Your task to perform on an android device: open app "Pluto TV - Live TV and Movies" (install if not already installed) Image 0: 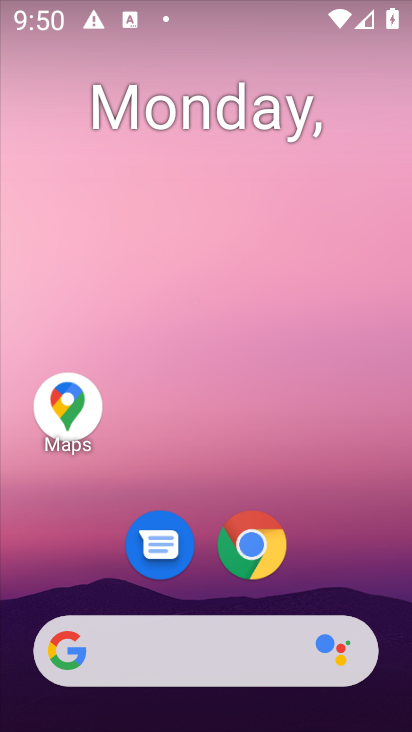
Step 0: drag from (373, 565) to (354, 102)
Your task to perform on an android device: open app "Pluto TV - Live TV and Movies" (install if not already installed) Image 1: 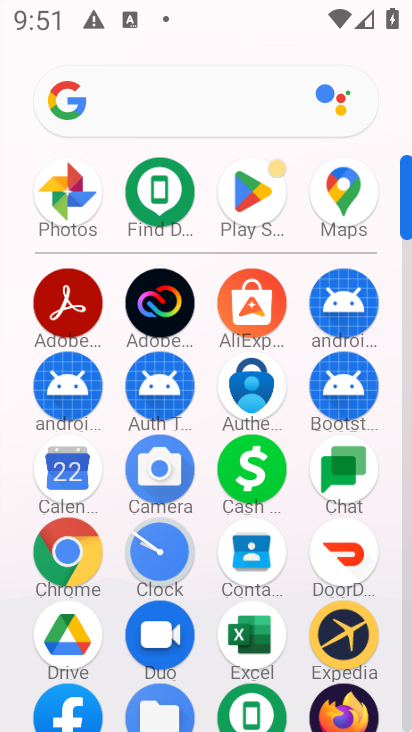
Step 1: click (258, 192)
Your task to perform on an android device: open app "Pluto TV - Live TV and Movies" (install if not already installed) Image 2: 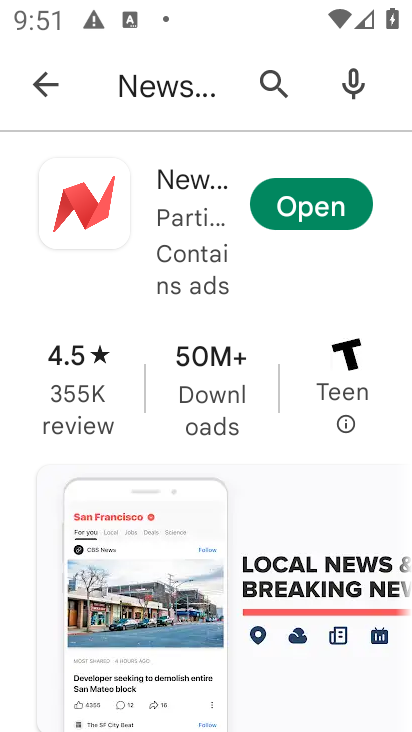
Step 2: press back button
Your task to perform on an android device: open app "Pluto TV - Live TV and Movies" (install if not already installed) Image 3: 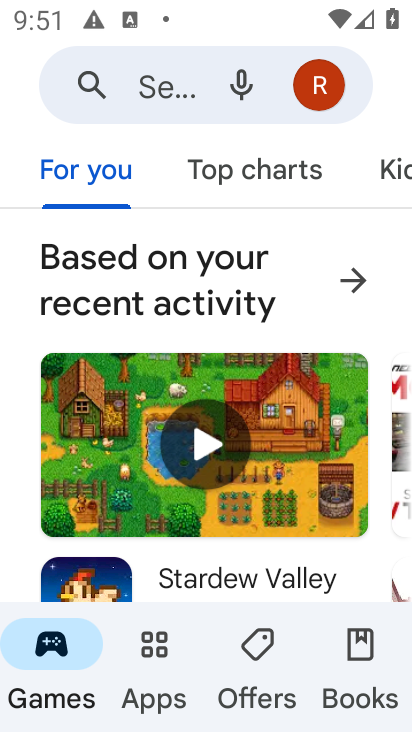
Step 3: click (169, 74)
Your task to perform on an android device: open app "Pluto TV - Live TV and Movies" (install if not already installed) Image 4: 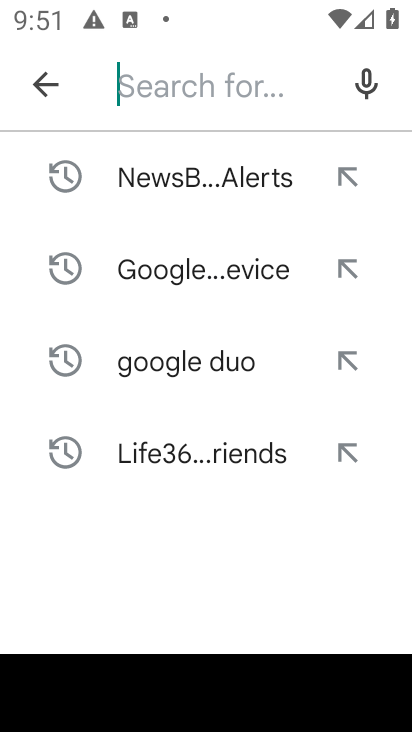
Step 4: type "Pluto TV - Live TV and Movies"
Your task to perform on an android device: open app "Pluto TV - Live TV and Movies" (install if not already installed) Image 5: 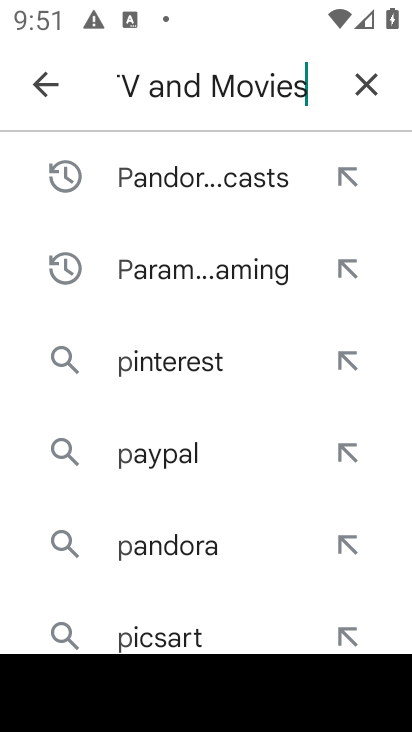
Step 5: press enter
Your task to perform on an android device: open app "Pluto TV - Live TV and Movies" (install if not already installed) Image 6: 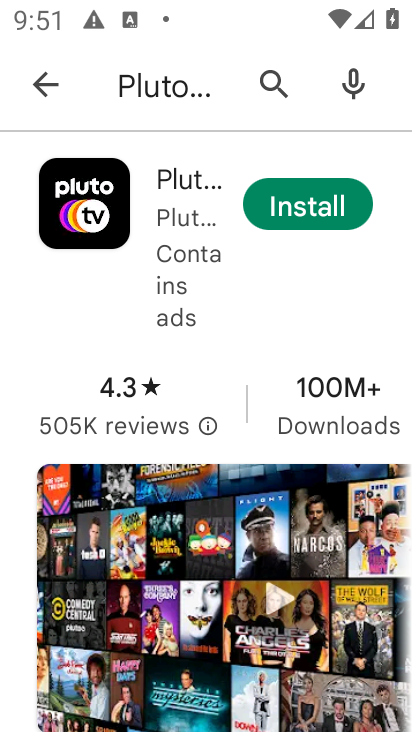
Step 6: click (297, 214)
Your task to perform on an android device: open app "Pluto TV - Live TV and Movies" (install if not already installed) Image 7: 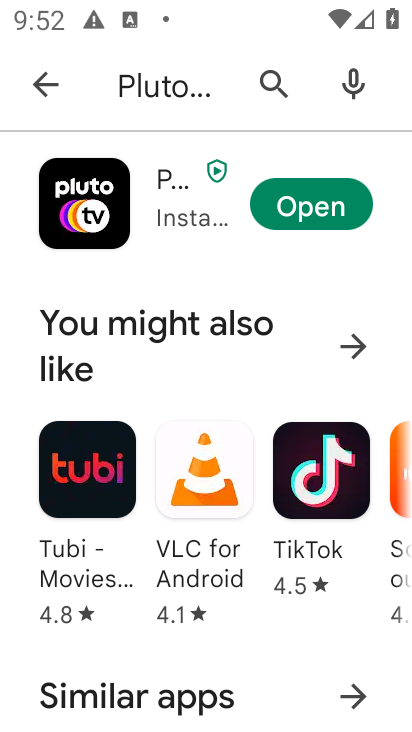
Step 7: click (335, 211)
Your task to perform on an android device: open app "Pluto TV - Live TV and Movies" (install if not already installed) Image 8: 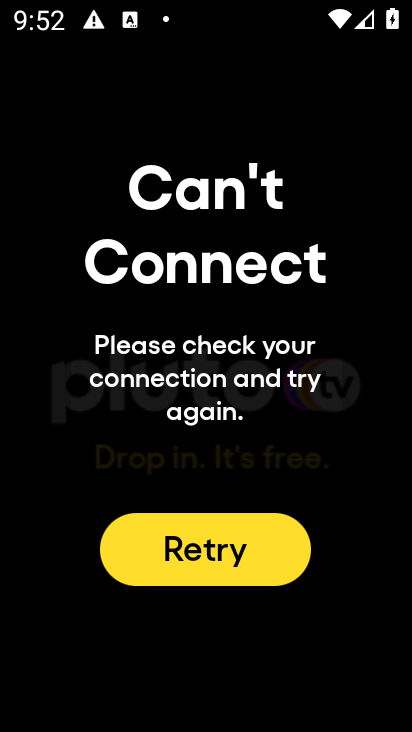
Step 8: task complete